Your task to perform on an android device: set default search engine in the chrome app Image 0: 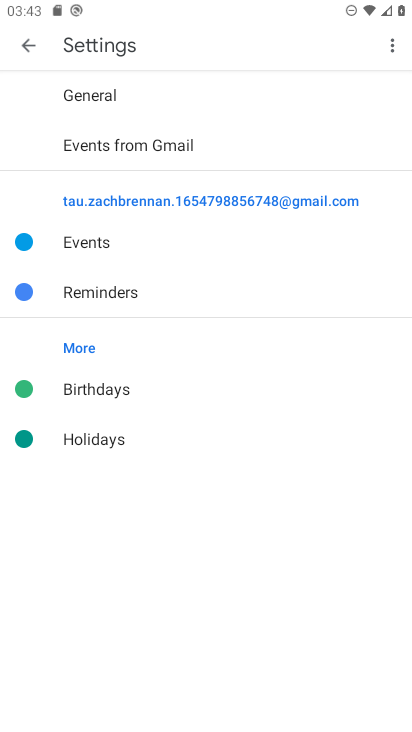
Step 0: press home button
Your task to perform on an android device: set default search engine in the chrome app Image 1: 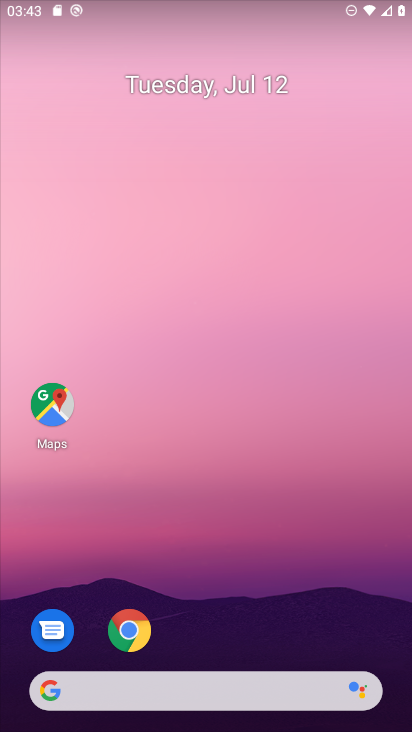
Step 1: click (132, 634)
Your task to perform on an android device: set default search engine in the chrome app Image 2: 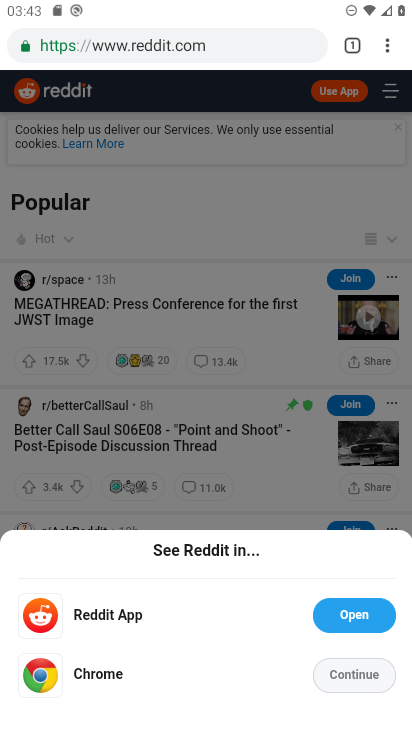
Step 2: click (385, 46)
Your task to perform on an android device: set default search engine in the chrome app Image 3: 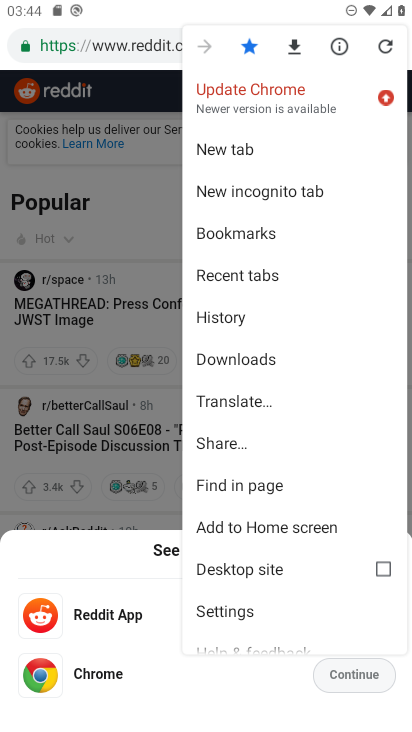
Step 3: click (233, 610)
Your task to perform on an android device: set default search engine in the chrome app Image 4: 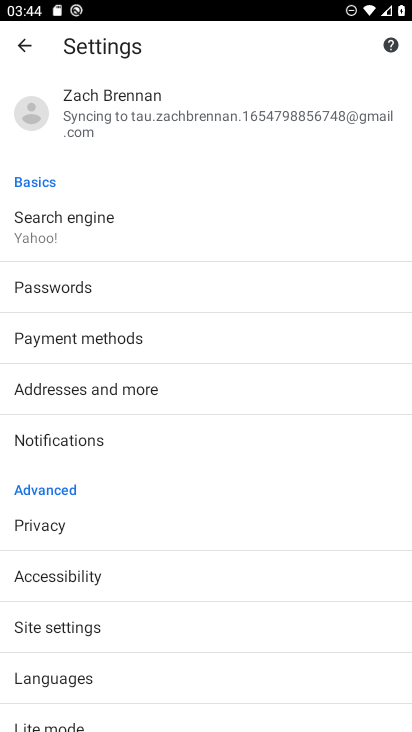
Step 4: click (39, 216)
Your task to perform on an android device: set default search engine in the chrome app Image 5: 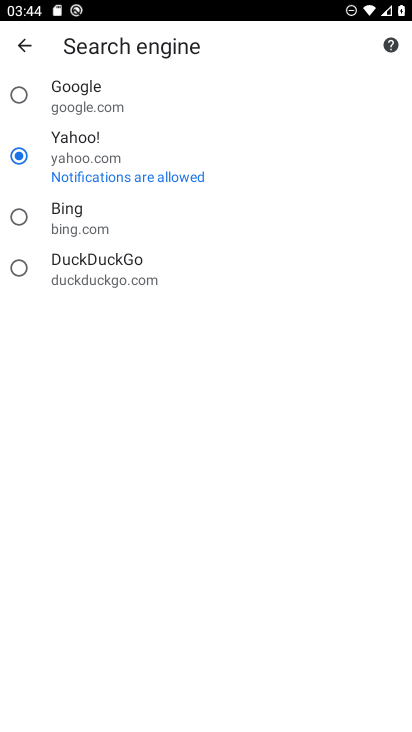
Step 5: click (16, 98)
Your task to perform on an android device: set default search engine in the chrome app Image 6: 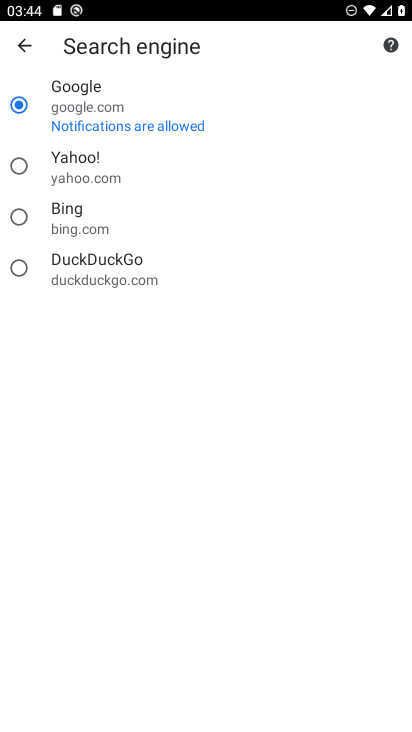
Step 6: task complete